Your task to perform on an android device: turn off priority inbox in the gmail app Image 0: 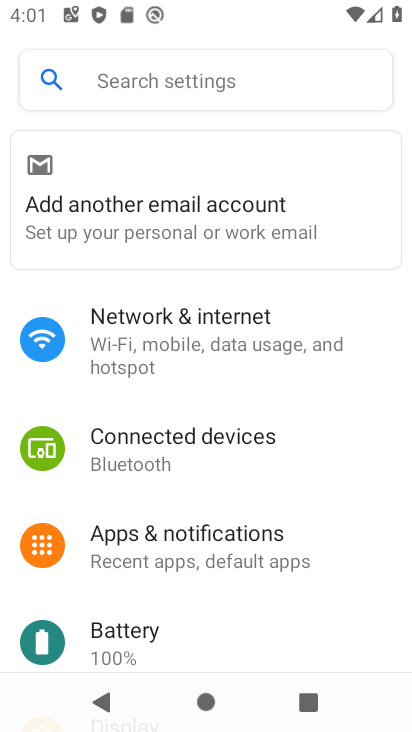
Step 0: press home button
Your task to perform on an android device: turn off priority inbox in the gmail app Image 1: 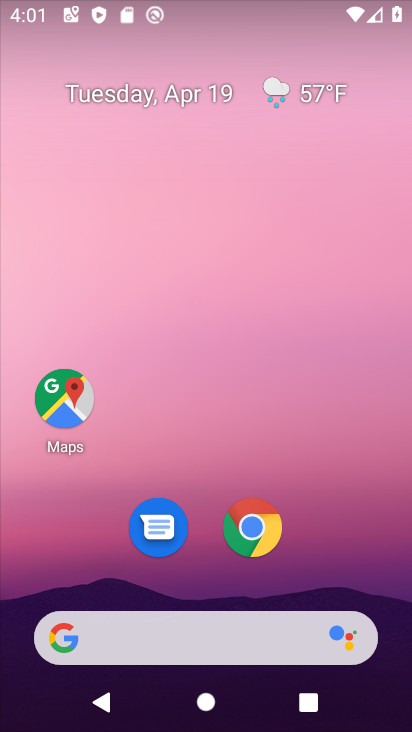
Step 1: drag from (384, 608) to (348, 132)
Your task to perform on an android device: turn off priority inbox in the gmail app Image 2: 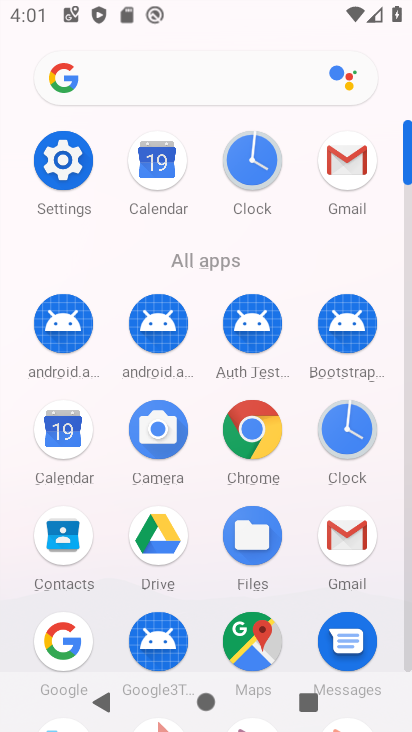
Step 2: click (404, 656)
Your task to perform on an android device: turn off priority inbox in the gmail app Image 3: 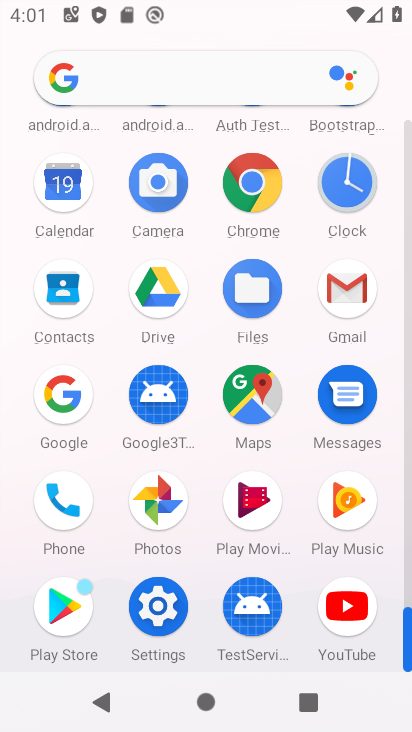
Step 3: click (344, 289)
Your task to perform on an android device: turn off priority inbox in the gmail app Image 4: 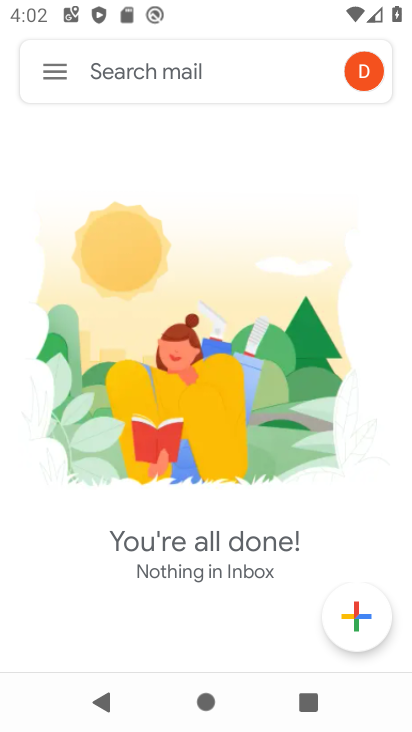
Step 4: click (50, 73)
Your task to perform on an android device: turn off priority inbox in the gmail app Image 5: 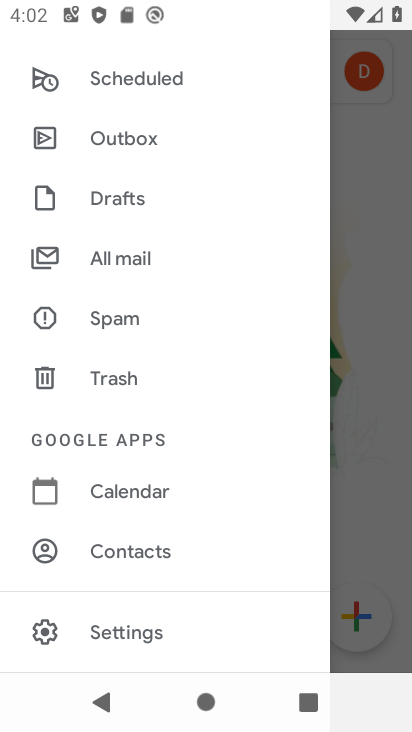
Step 5: drag from (265, 123) to (269, 7)
Your task to perform on an android device: turn off priority inbox in the gmail app Image 6: 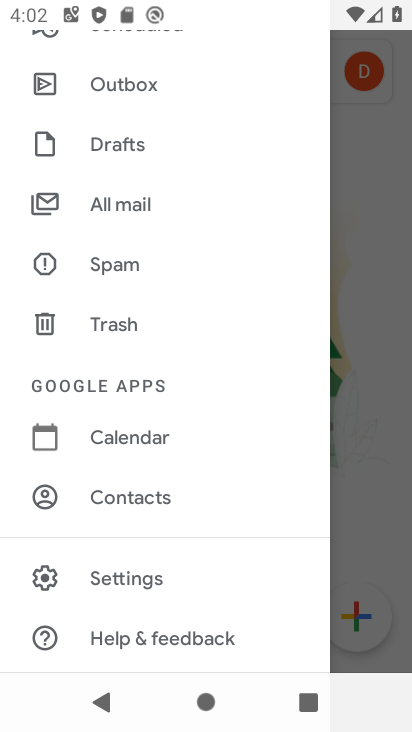
Step 6: click (110, 574)
Your task to perform on an android device: turn off priority inbox in the gmail app Image 7: 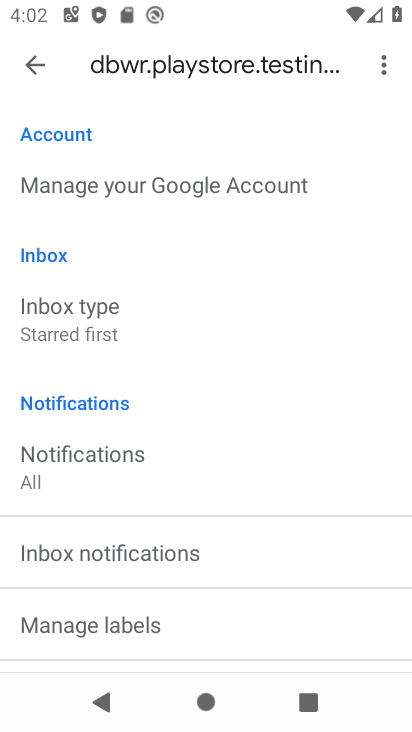
Step 7: click (64, 326)
Your task to perform on an android device: turn off priority inbox in the gmail app Image 8: 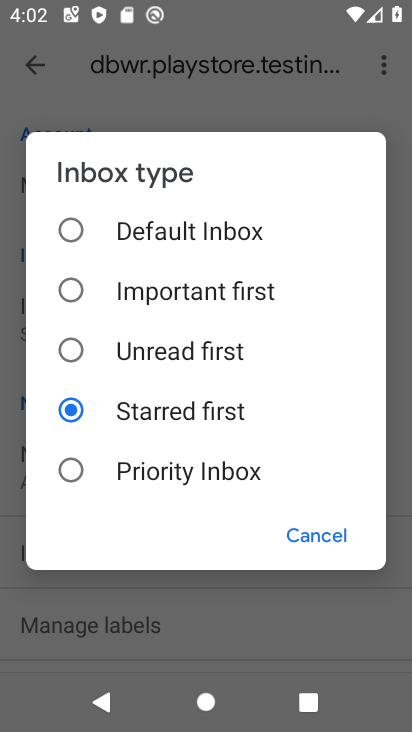
Step 8: task complete